Your task to perform on an android device: Open Android settings Image 0: 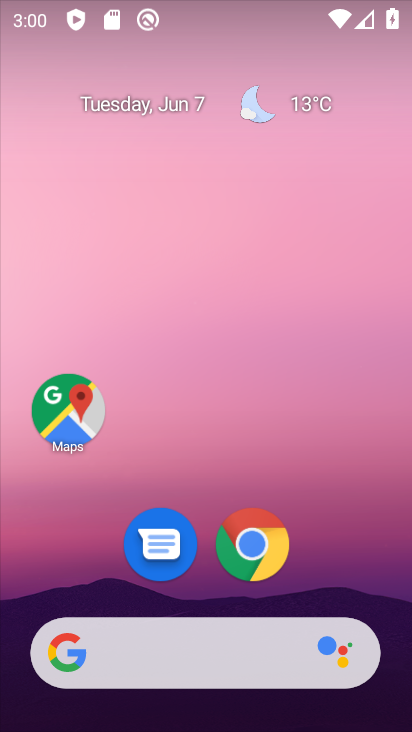
Step 0: press home button
Your task to perform on an android device: Open Android settings Image 1: 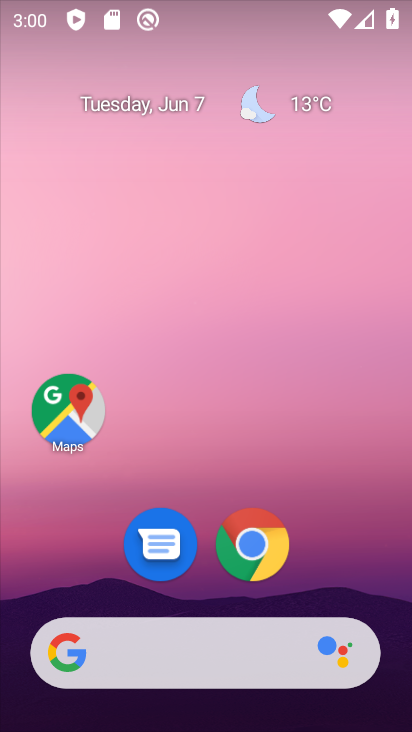
Step 1: press home button
Your task to perform on an android device: Open Android settings Image 2: 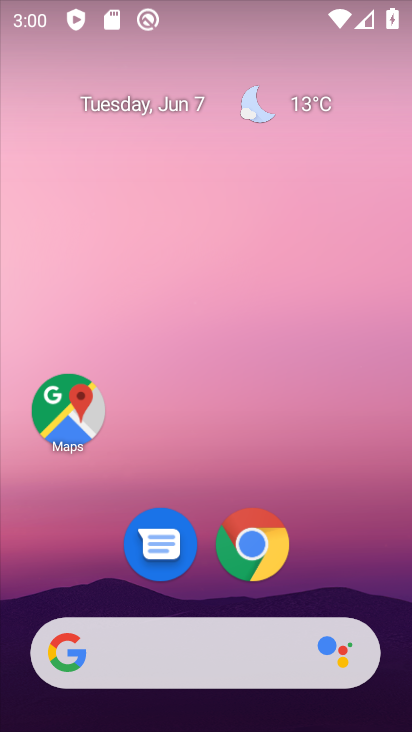
Step 2: drag from (211, 591) to (199, 438)
Your task to perform on an android device: Open Android settings Image 3: 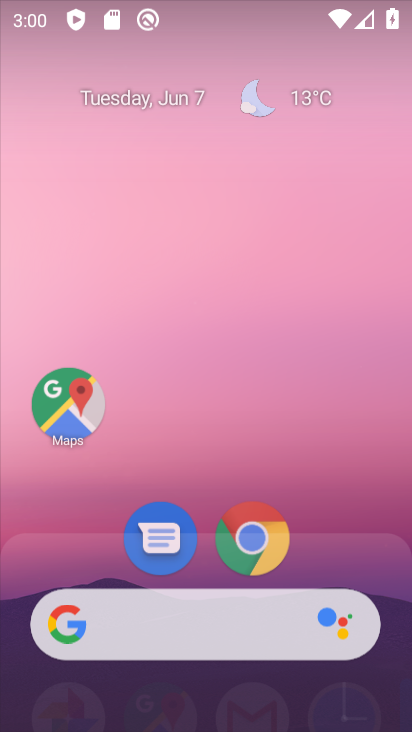
Step 3: drag from (196, 146) to (196, 85)
Your task to perform on an android device: Open Android settings Image 4: 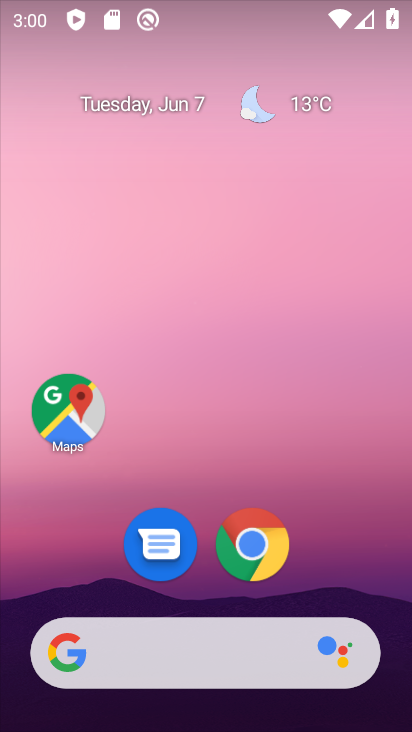
Step 4: drag from (213, 576) to (248, 16)
Your task to perform on an android device: Open Android settings Image 5: 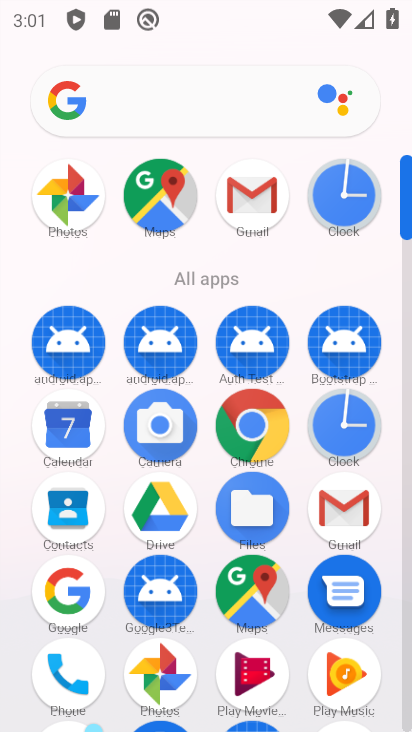
Step 5: drag from (199, 431) to (201, 98)
Your task to perform on an android device: Open Android settings Image 6: 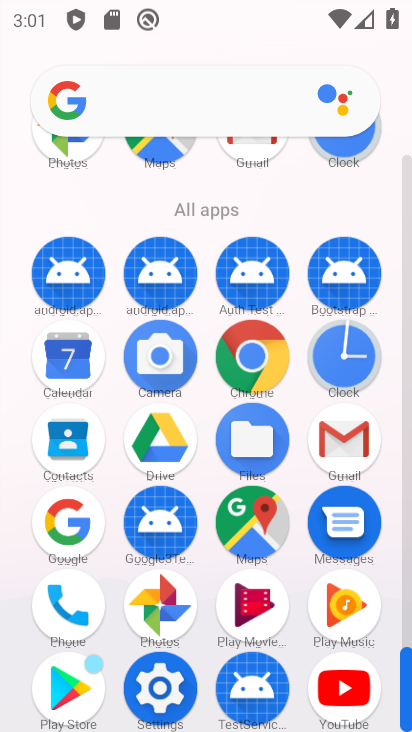
Step 6: click (158, 677)
Your task to perform on an android device: Open Android settings Image 7: 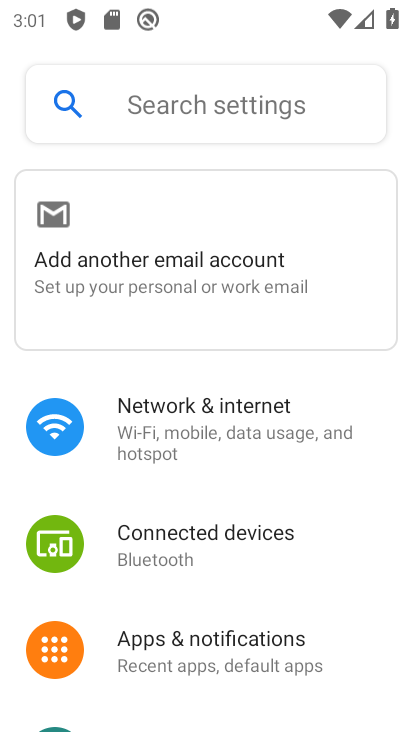
Step 7: drag from (230, 685) to (234, 44)
Your task to perform on an android device: Open Android settings Image 8: 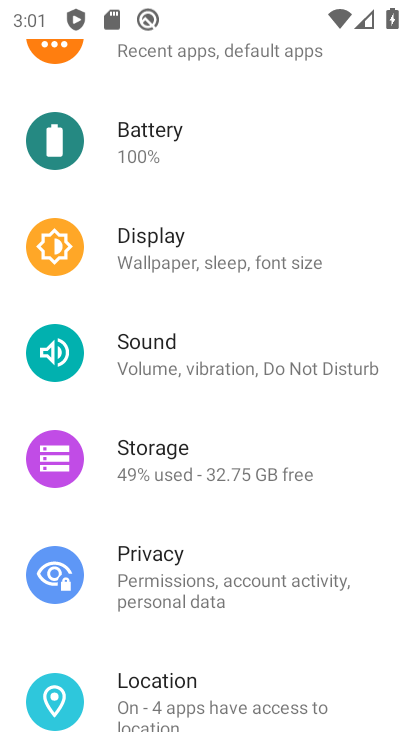
Step 8: drag from (227, 676) to (227, 25)
Your task to perform on an android device: Open Android settings Image 9: 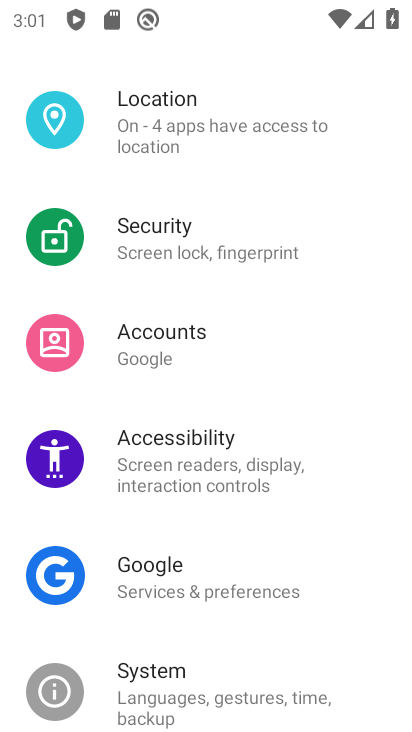
Step 9: drag from (209, 654) to (198, 252)
Your task to perform on an android device: Open Android settings Image 10: 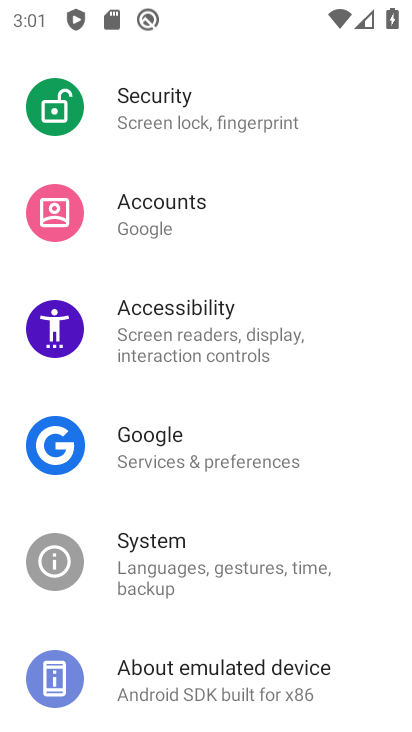
Step 10: click (198, 114)
Your task to perform on an android device: Open Android settings Image 11: 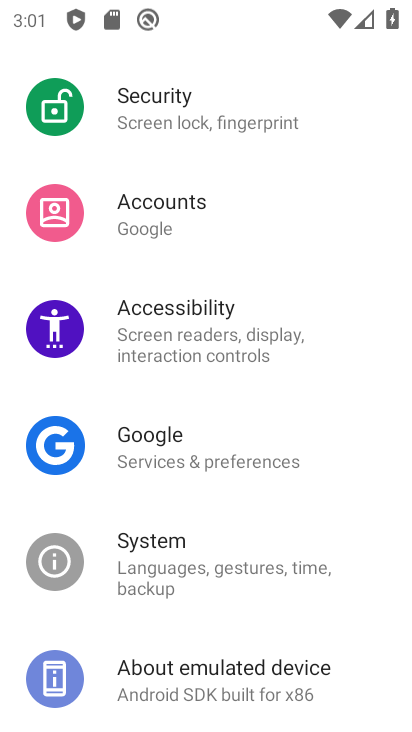
Step 11: click (319, 683)
Your task to perform on an android device: Open Android settings Image 12: 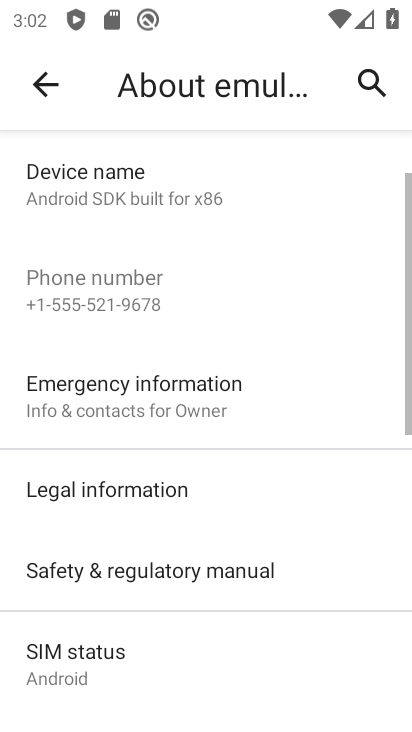
Step 12: drag from (184, 685) to (207, 264)
Your task to perform on an android device: Open Android settings Image 13: 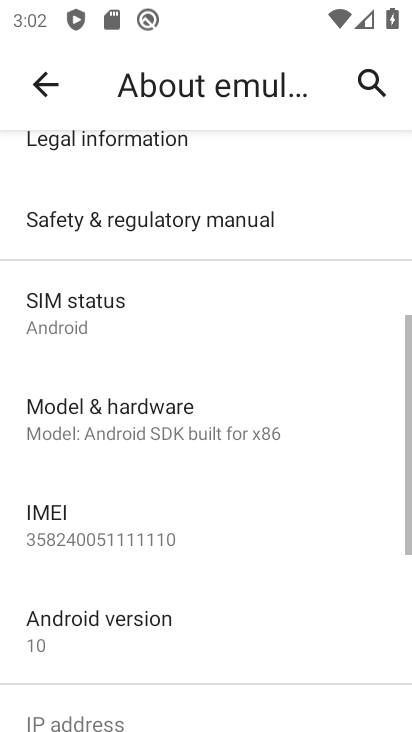
Step 13: click (207, 180)
Your task to perform on an android device: Open Android settings Image 14: 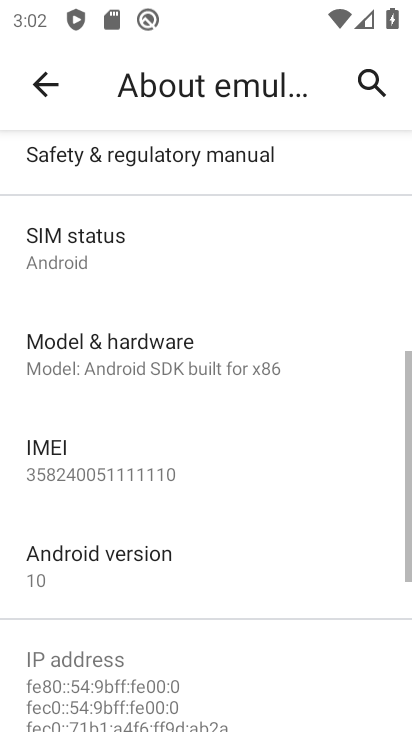
Step 14: click (211, 582)
Your task to perform on an android device: Open Android settings Image 15: 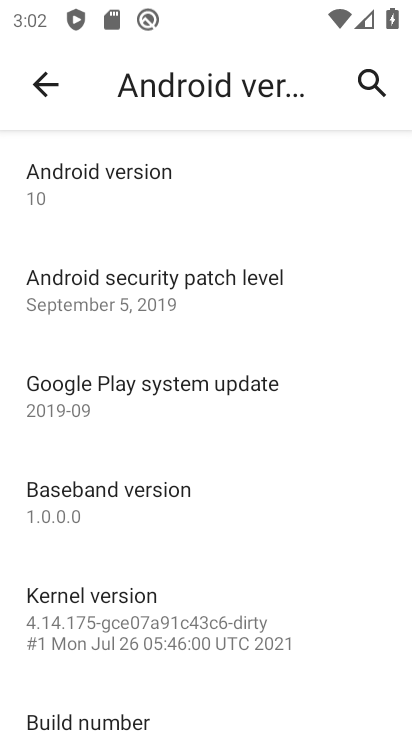
Step 15: task complete